Your task to perform on an android device: turn off airplane mode Image 0: 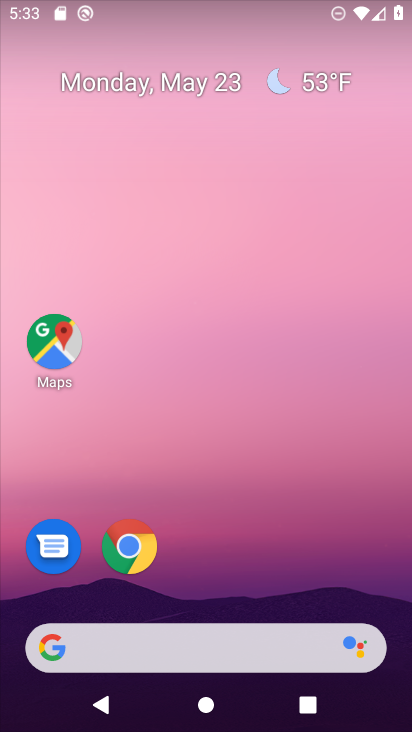
Step 0: drag from (240, 573) to (235, 48)
Your task to perform on an android device: turn off airplane mode Image 1: 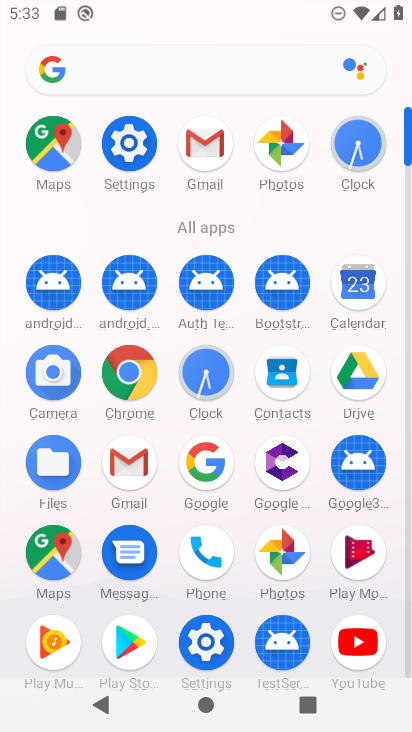
Step 1: click (121, 145)
Your task to perform on an android device: turn off airplane mode Image 2: 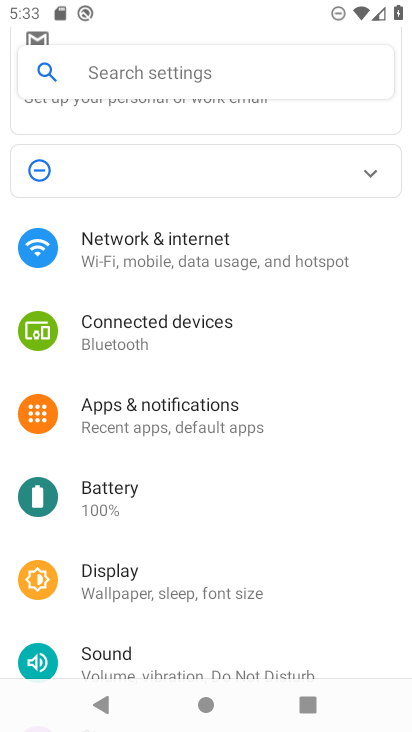
Step 2: click (191, 252)
Your task to perform on an android device: turn off airplane mode Image 3: 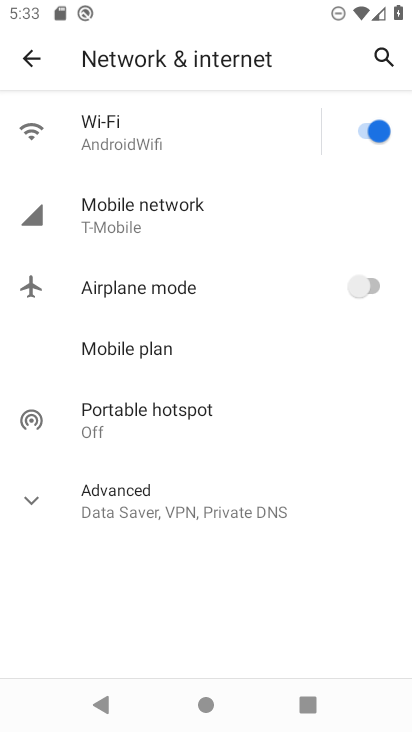
Step 3: task complete